Your task to perform on an android device: Go to Yahoo.com Image 0: 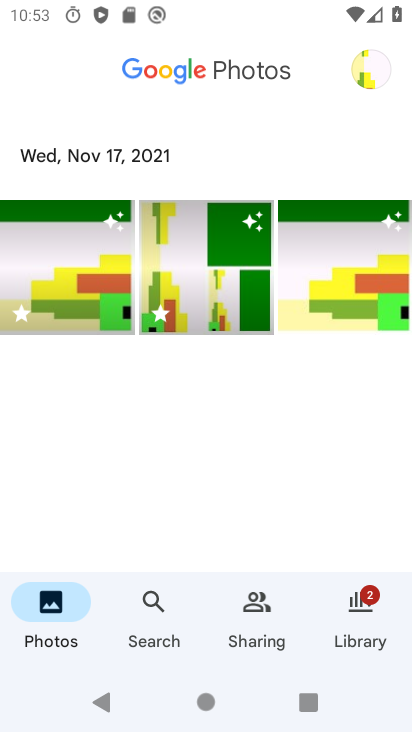
Step 0: press home button
Your task to perform on an android device: Go to Yahoo.com Image 1: 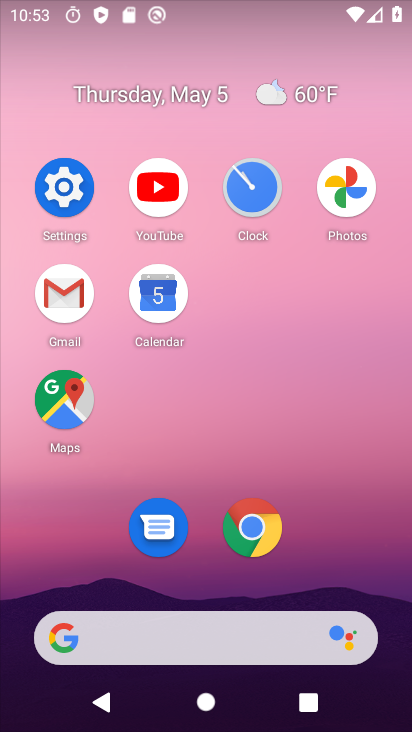
Step 1: click (272, 528)
Your task to perform on an android device: Go to Yahoo.com Image 2: 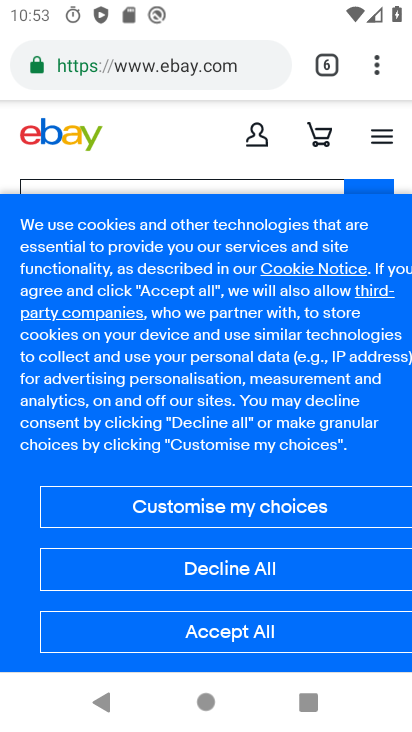
Step 2: click (337, 63)
Your task to perform on an android device: Go to Yahoo.com Image 3: 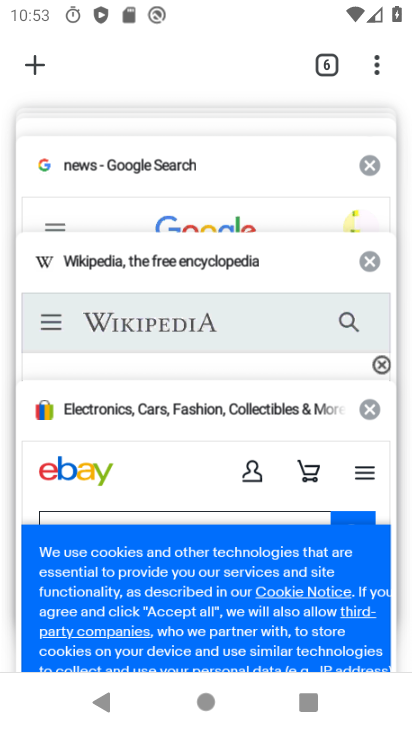
Step 3: click (30, 58)
Your task to perform on an android device: Go to Yahoo.com Image 4: 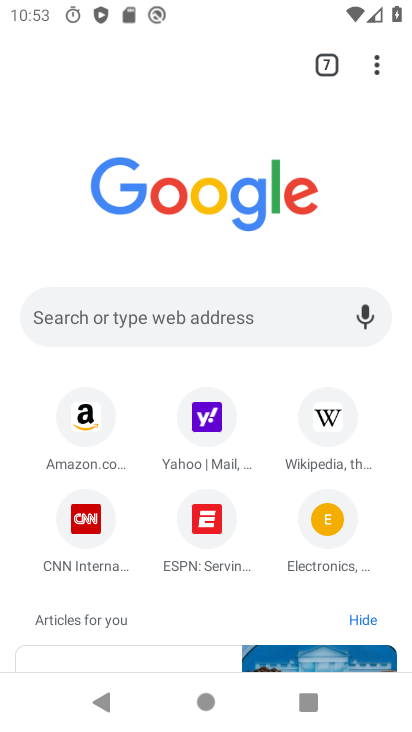
Step 4: click (220, 426)
Your task to perform on an android device: Go to Yahoo.com Image 5: 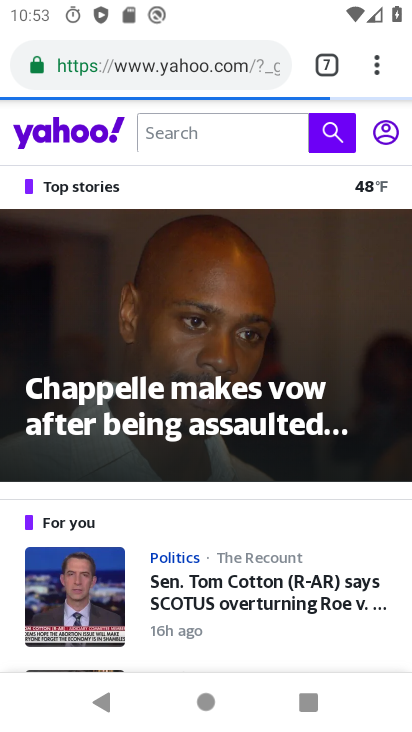
Step 5: task complete